Your task to perform on an android device: Search for the best rated headphones on Amazon. Image 0: 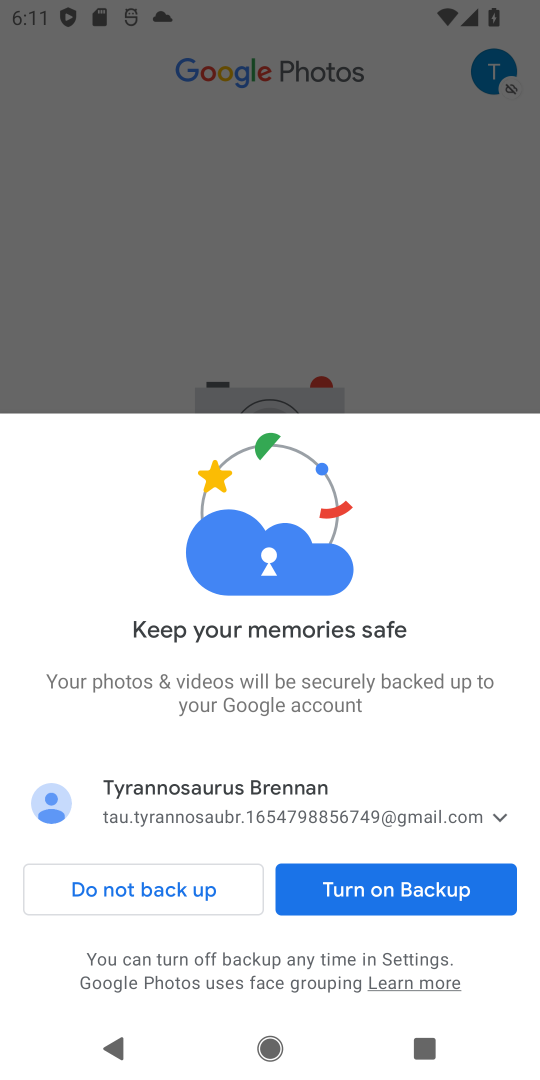
Step 0: press home button
Your task to perform on an android device: Search for the best rated headphones on Amazon. Image 1: 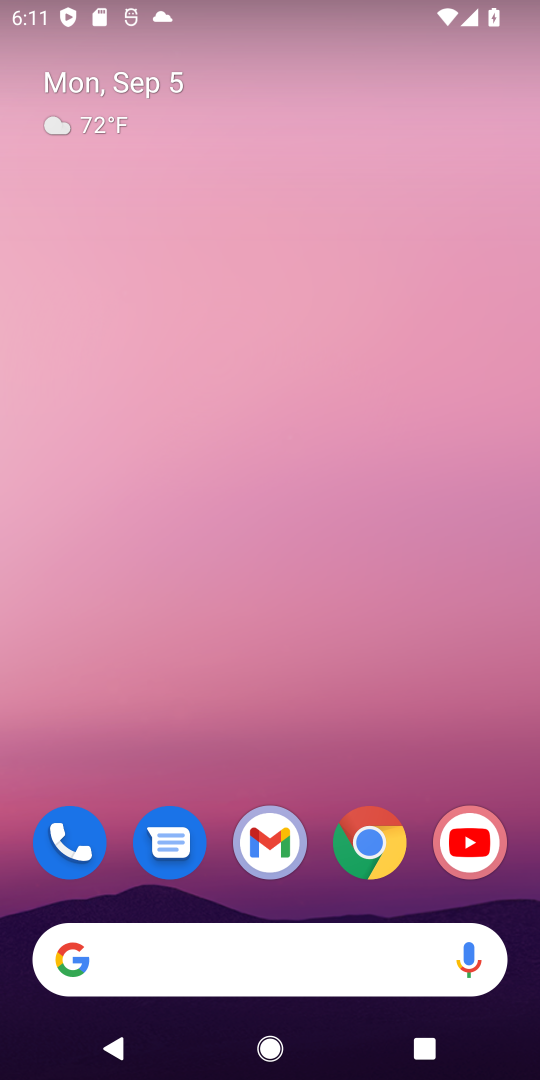
Step 1: click (369, 841)
Your task to perform on an android device: Search for the best rated headphones on Amazon. Image 2: 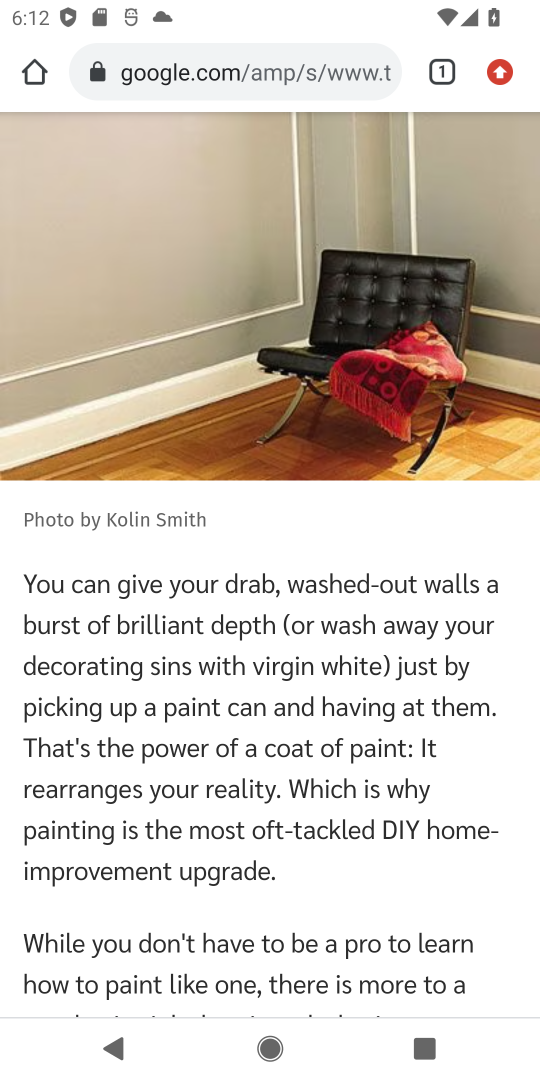
Step 2: click (334, 83)
Your task to perform on an android device: Search for the best rated headphones on Amazon. Image 3: 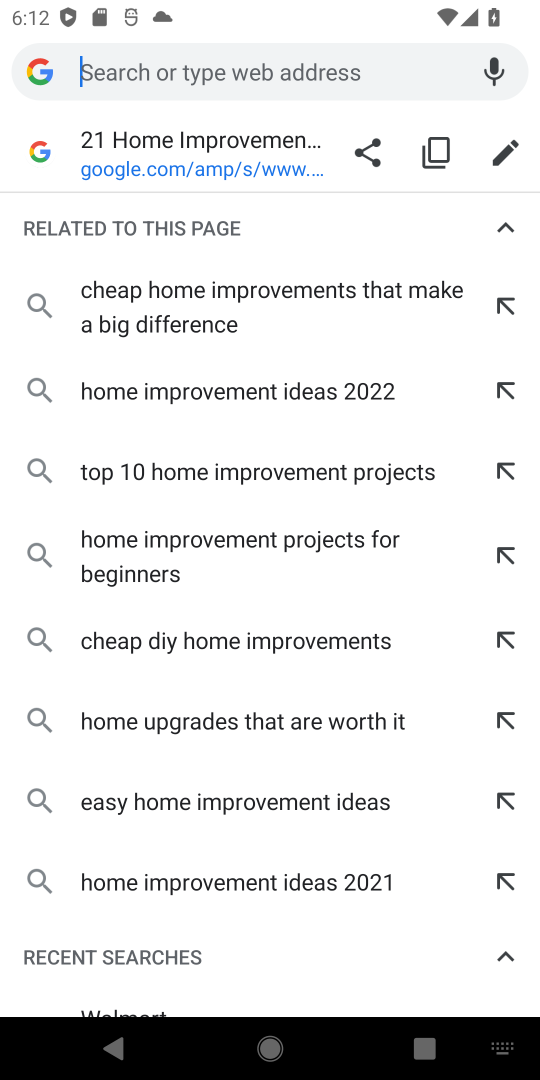
Step 3: type "Amazon"
Your task to perform on an android device: Search for the best rated headphones on Amazon. Image 4: 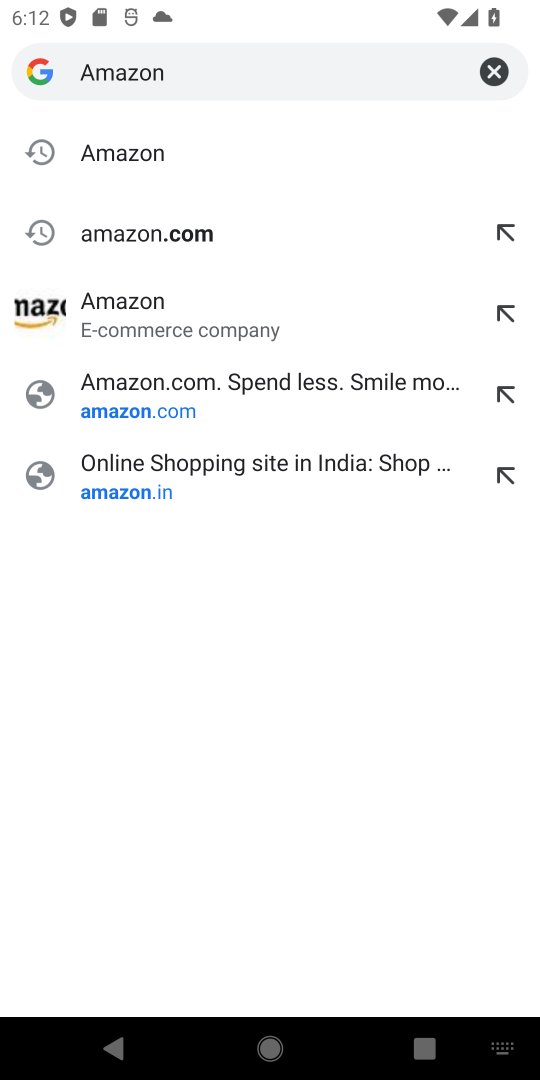
Step 4: click (92, 158)
Your task to perform on an android device: Search for the best rated headphones on Amazon. Image 5: 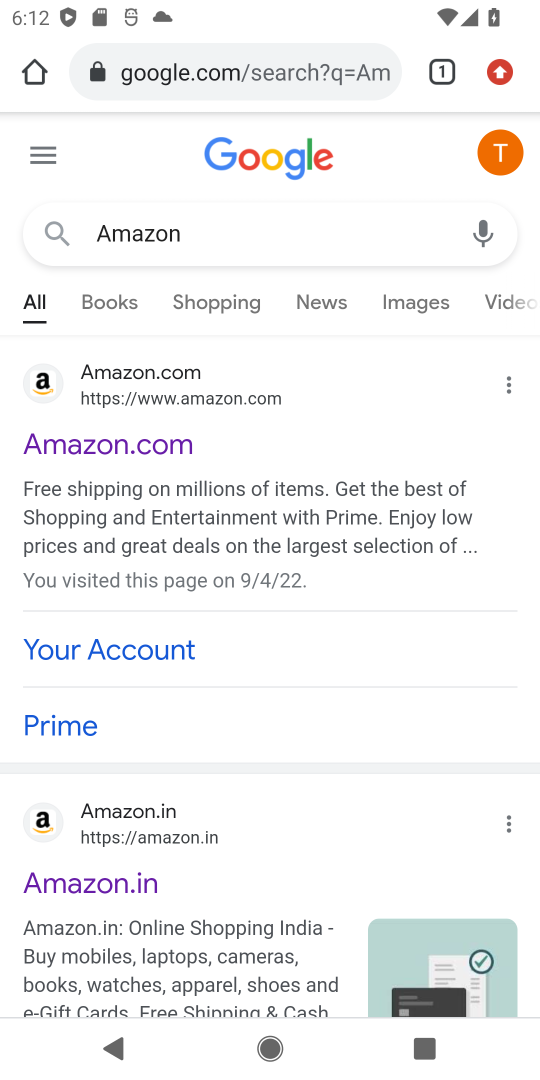
Step 5: click (62, 437)
Your task to perform on an android device: Search for the best rated headphones on Amazon. Image 6: 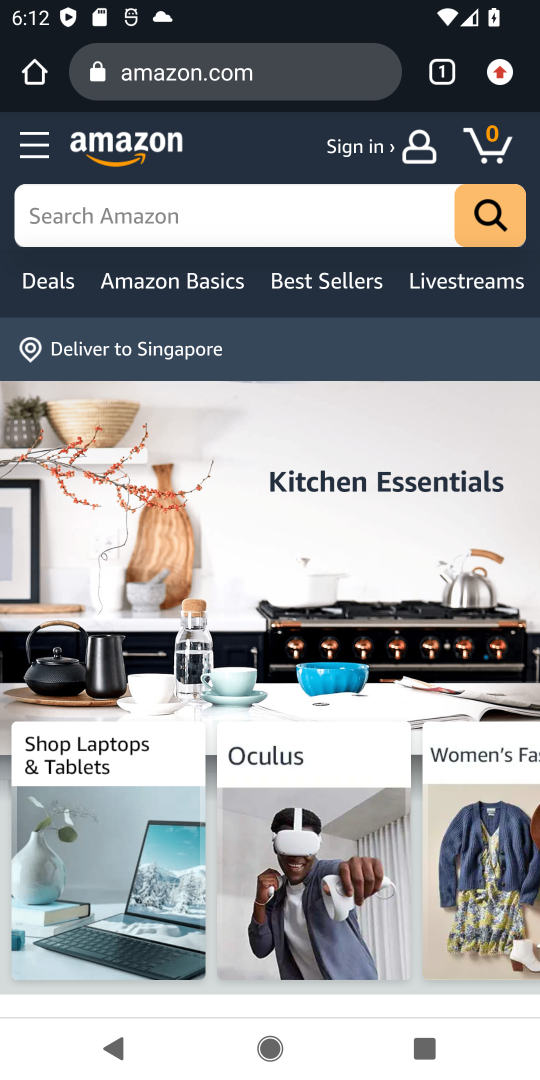
Step 6: click (183, 218)
Your task to perform on an android device: Search for the best rated headphones on Amazon. Image 7: 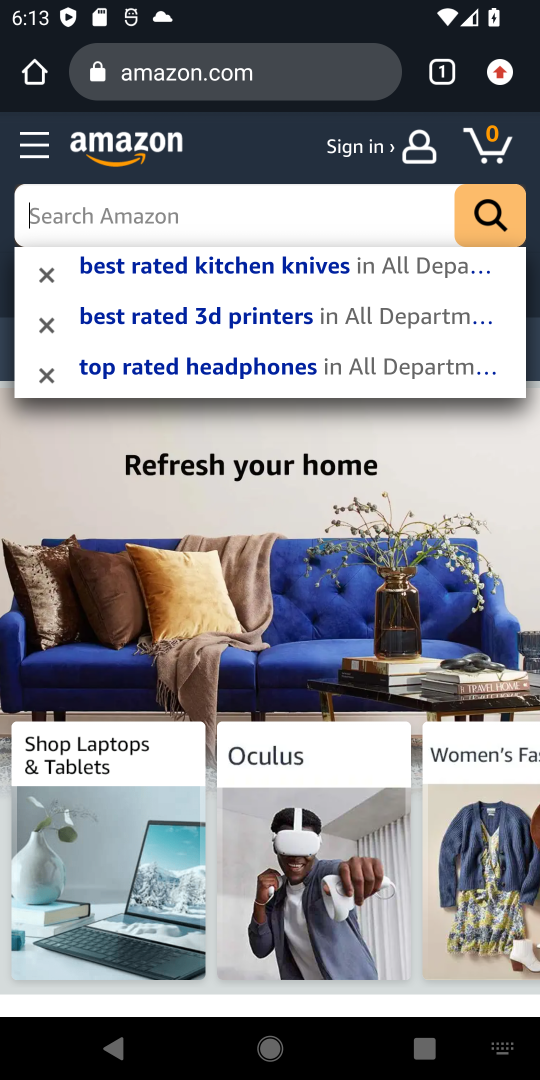
Step 7: type "best rated headphones"
Your task to perform on an android device: Search for the best rated headphones on Amazon. Image 8: 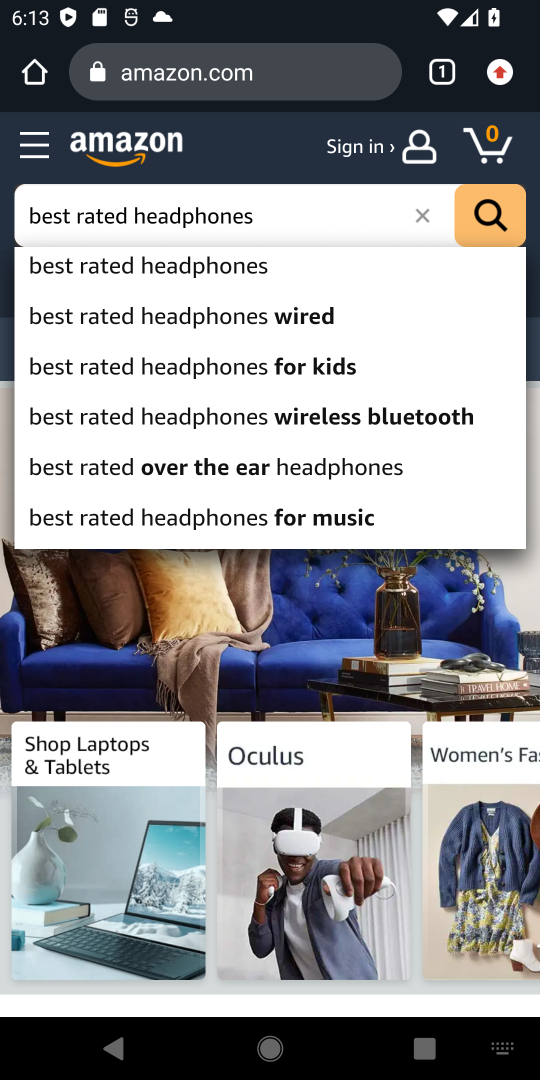
Step 8: click (488, 226)
Your task to perform on an android device: Search for the best rated headphones on Amazon. Image 9: 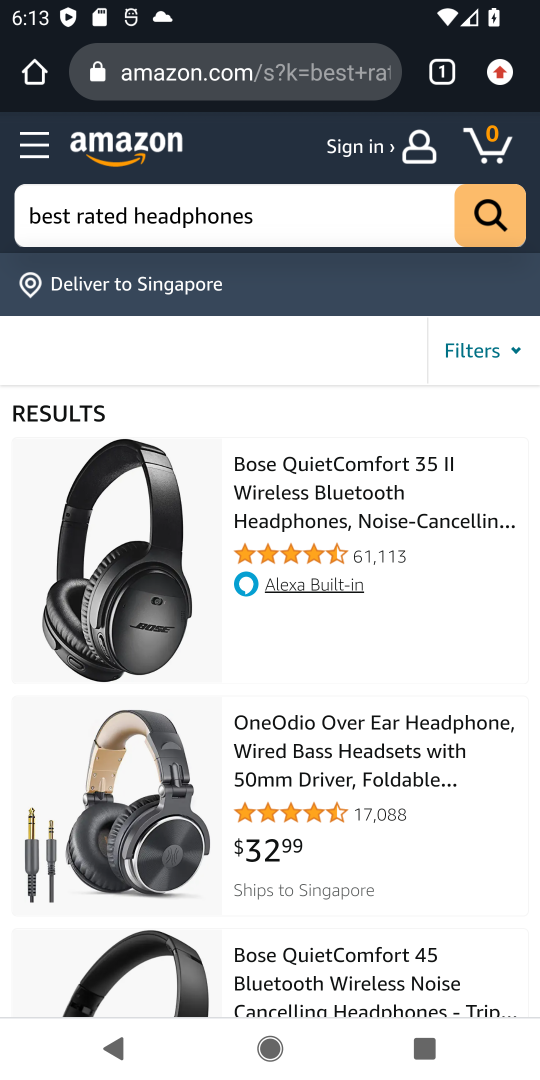
Step 9: task complete